Your task to perform on an android device: choose inbox layout in the gmail app Image 0: 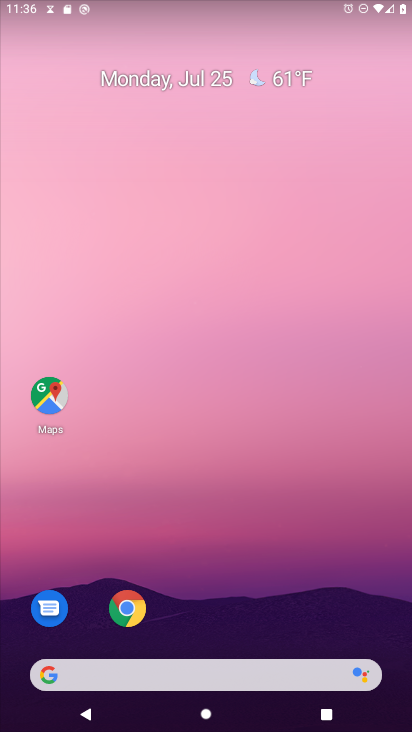
Step 0: drag from (192, 678) to (294, 98)
Your task to perform on an android device: choose inbox layout in the gmail app Image 1: 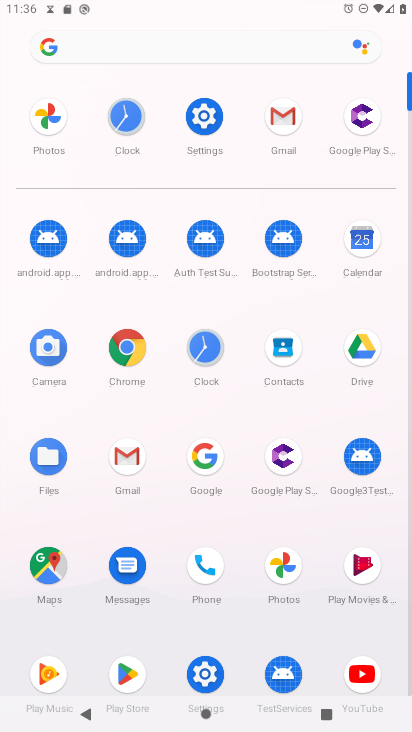
Step 1: click (281, 114)
Your task to perform on an android device: choose inbox layout in the gmail app Image 2: 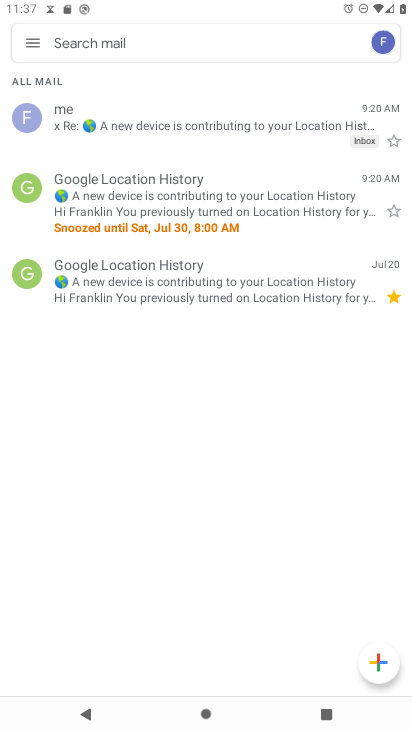
Step 2: click (33, 43)
Your task to perform on an android device: choose inbox layout in the gmail app Image 3: 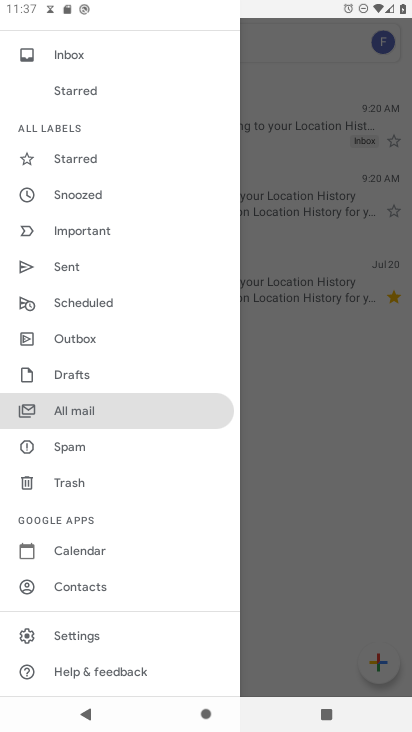
Step 3: click (86, 633)
Your task to perform on an android device: choose inbox layout in the gmail app Image 4: 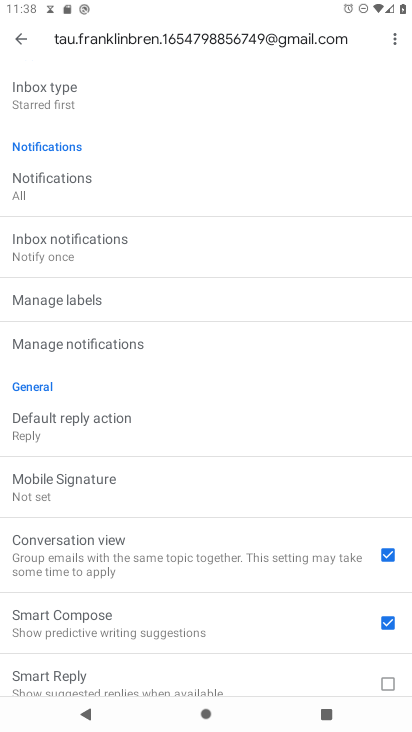
Step 4: click (50, 109)
Your task to perform on an android device: choose inbox layout in the gmail app Image 5: 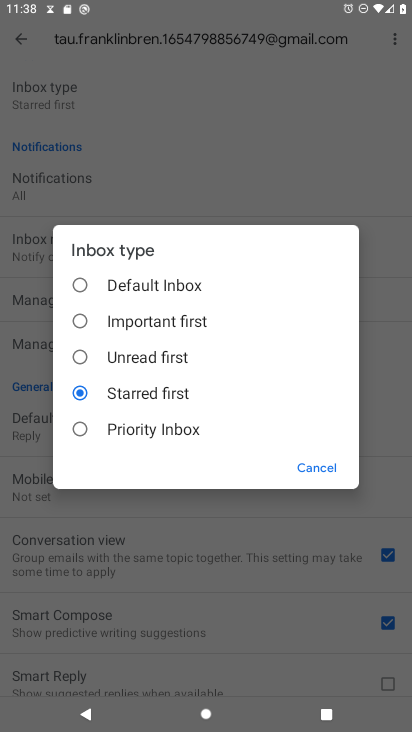
Step 5: click (76, 356)
Your task to perform on an android device: choose inbox layout in the gmail app Image 6: 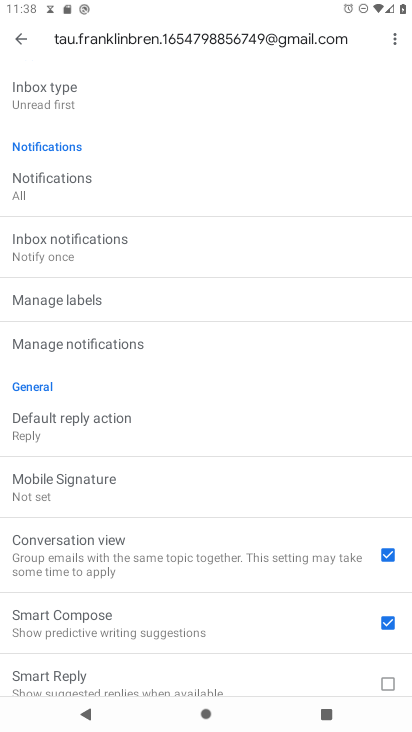
Step 6: task complete